Your task to perform on an android device: change keyboard looks Image 0: 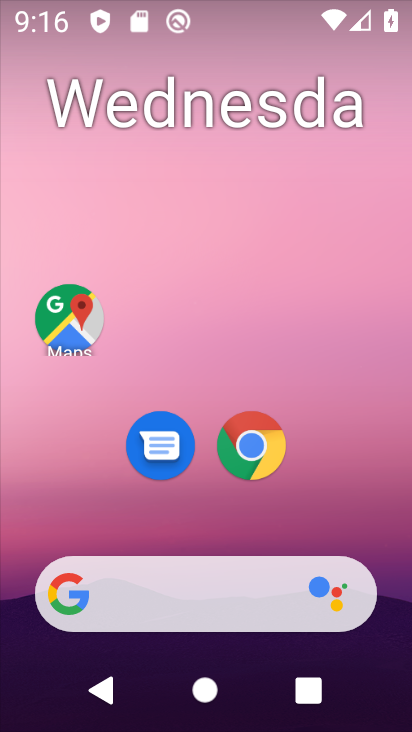
Step 0: drag from (210, 473) to (307, 12)
Your task to perform on an android device: change keyboard looks Image 1: 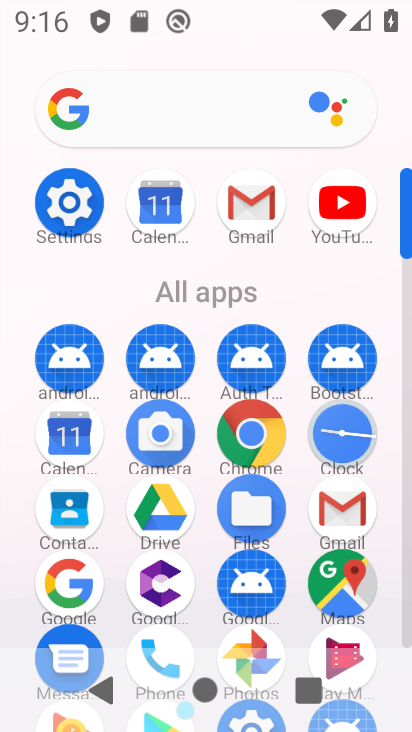
Step 1: click (74, 194)
Your task to perform on an android device: change keyboard looks Image 2: 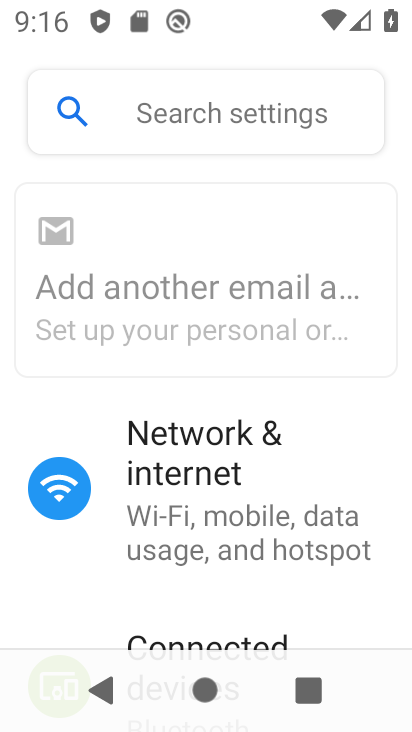
Step 2: drag from (238, 537) to (313, 76)
Your task to perform on an android device: change keyboard looks Image 3: 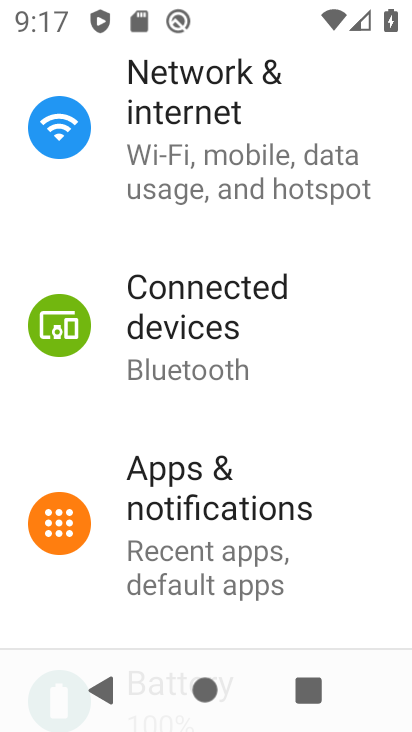
Step 3: drag from (184, 559) to (309, 62)
Your task to perform on an android device: change keyboard looks Image 4: 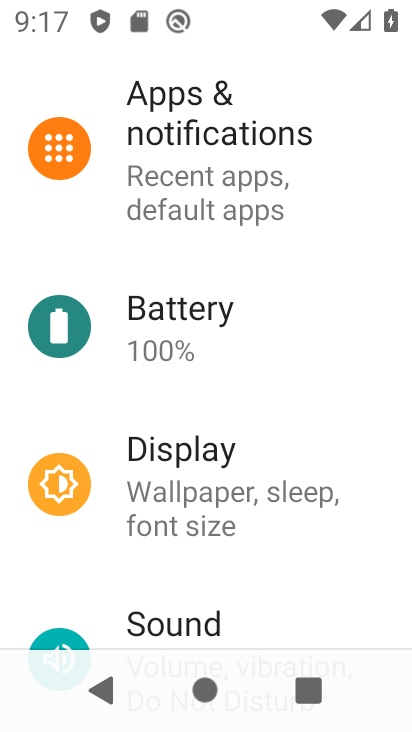
Step 4: drag from (179, 579) to (321, 61)
Your task to perform on an android device: change keyboard looks Image 5: 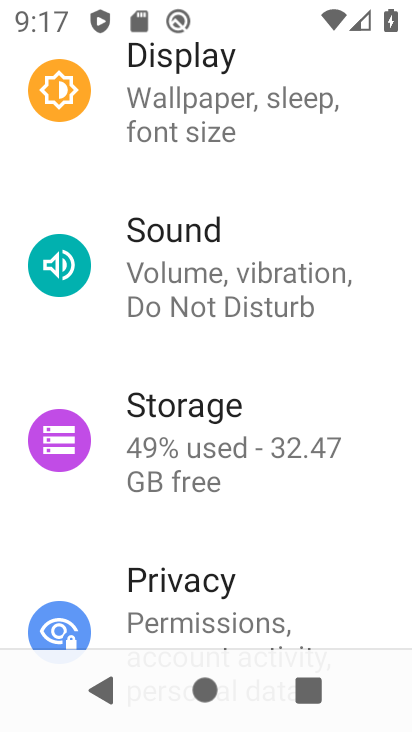
Step 5: drag from (221, 563) to (293, 95)
Your task to perform on an android device: change keyboard looks Image 6: 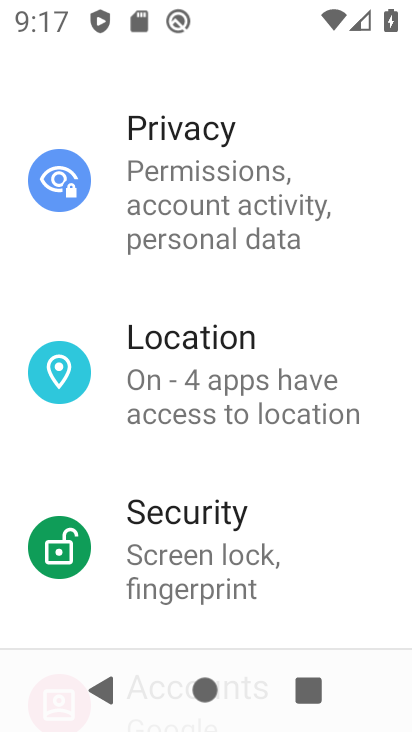
Step 6: drag from (218, 573) to (288, 57)
Your task to perform on an android device: change keyboard looks Image 7: 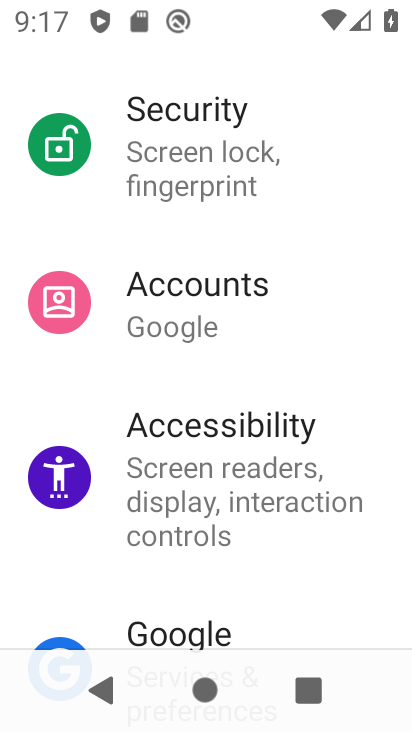
Step 7: drag from (202, 491) to (301, 11)
Your task to perform on an android device: change keyboard looks Image 8: 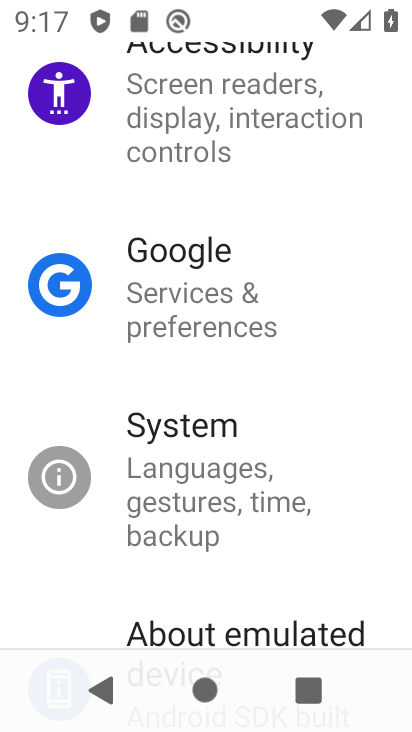
Step 8: drag from (167, 560) to (266, 22)
Your task to perform on an android device: change keyboard looks Image 9: 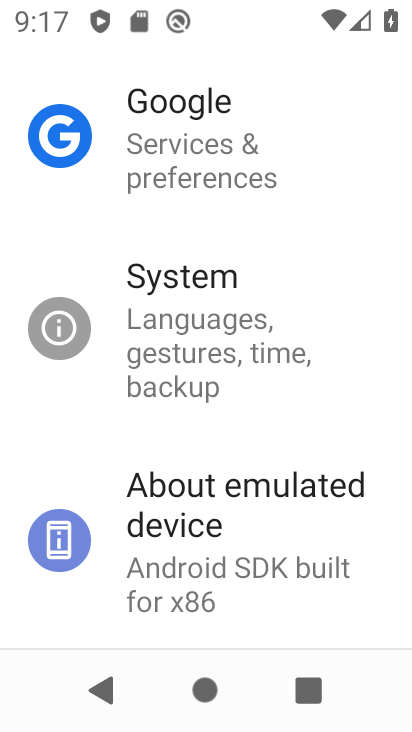
Step 9: click (192, 345)
Your task to perform on an android device: change keyboard looks Image 10: 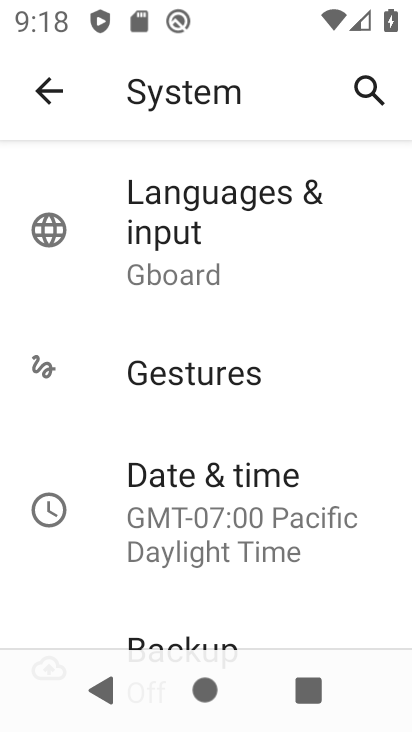
Step 10: click (187, 249)
Your task to perform on an android device: change keyboard looks Image 11: 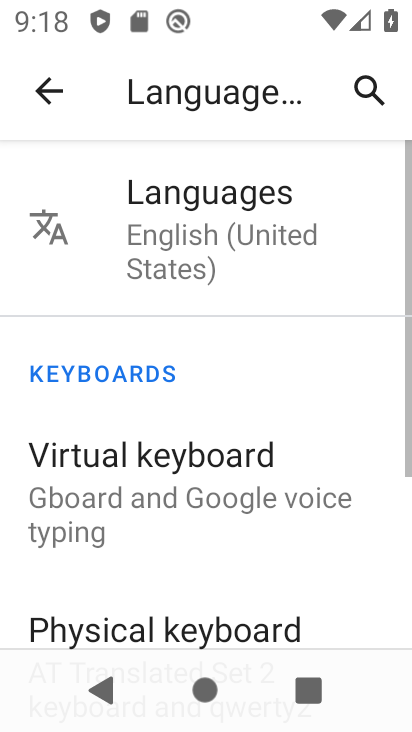
Step 11: click (139, 458)
Your task to perform on an android device: change keyboard looks Image 12: 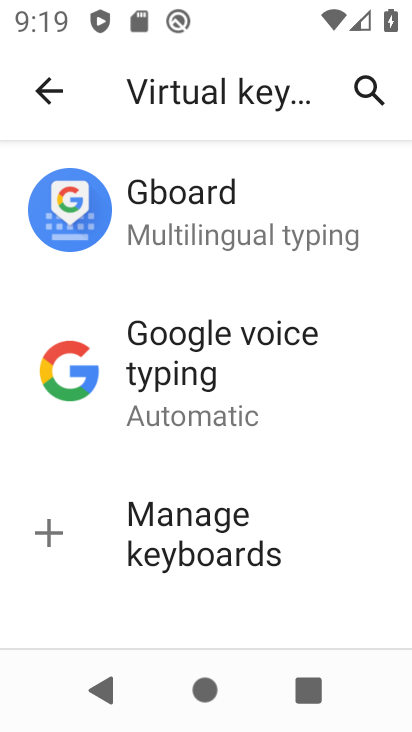
Step 12: click (192, 203)
Your task to perform on an android device: change keyboard looks Image 13: 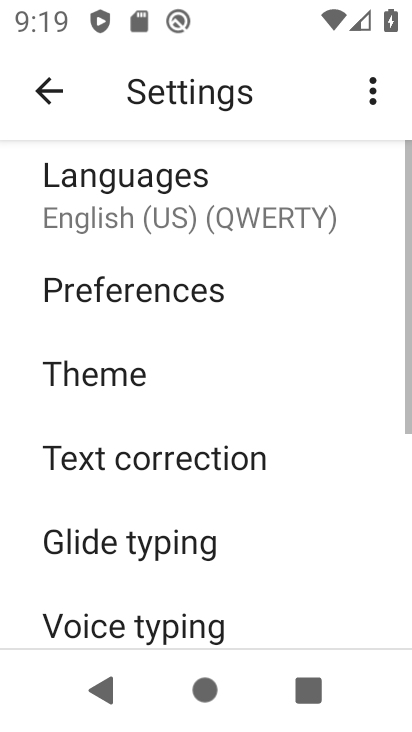
Step 13: click (121, 355)
Your task to perform on an android device: change keyboard looks Image 14: 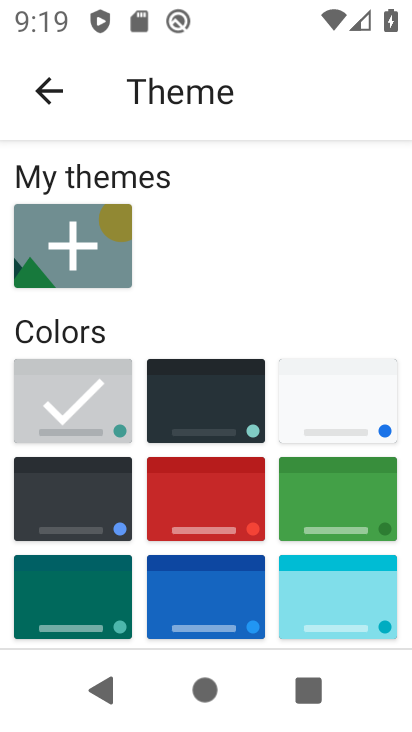
Step 14: click (199, 492)
Your task to perform on an android device: change keyboard looks Image 15: 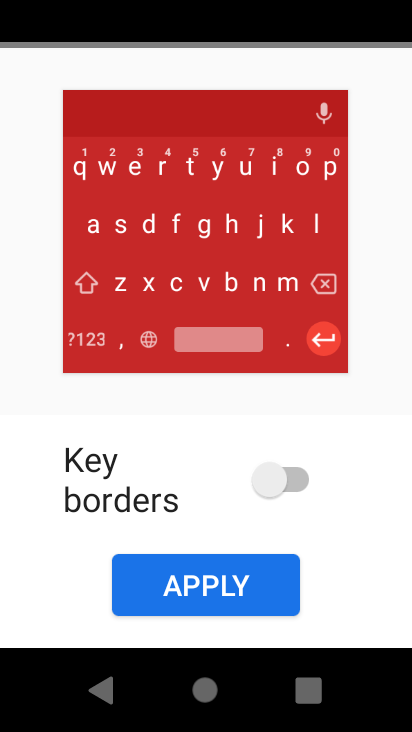
Step 15: task complete